Your task to perform on an android device: Show the shopping cart on costco.com. Image 0: 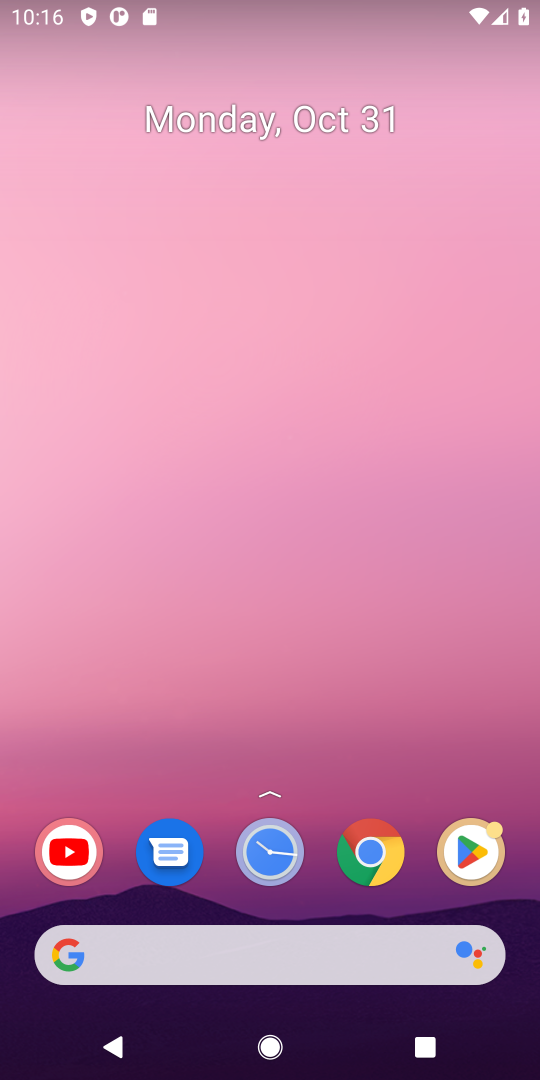
Step 0: drag from (233, 915) to (521, 440)
Your task to perform on an android device: Show the shopping cart on costco.com. Image 1: 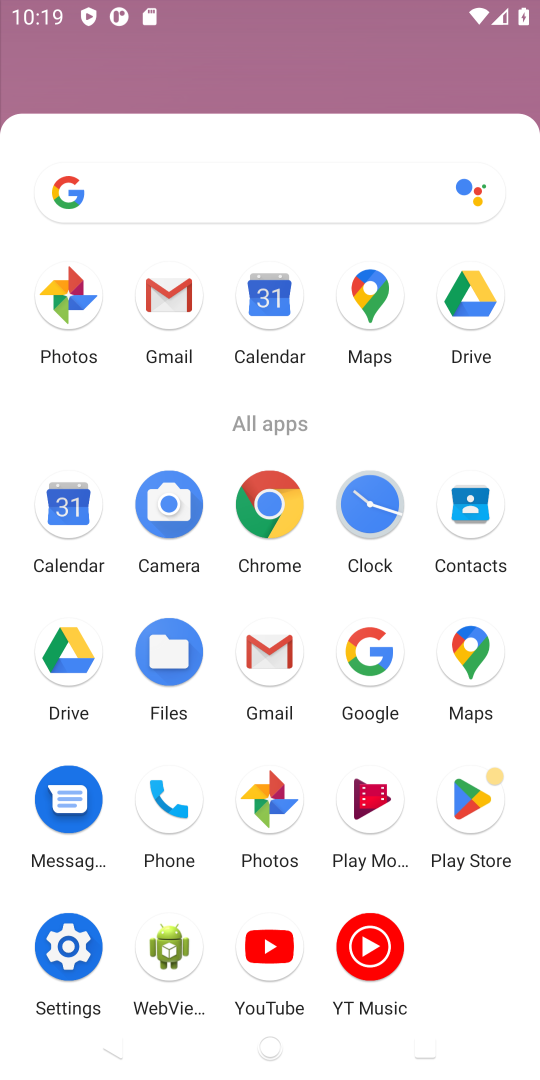
Step 1: click (279, 422)
Your task to perform on an android device: Show the shopping cart on costco.com. Image 2: 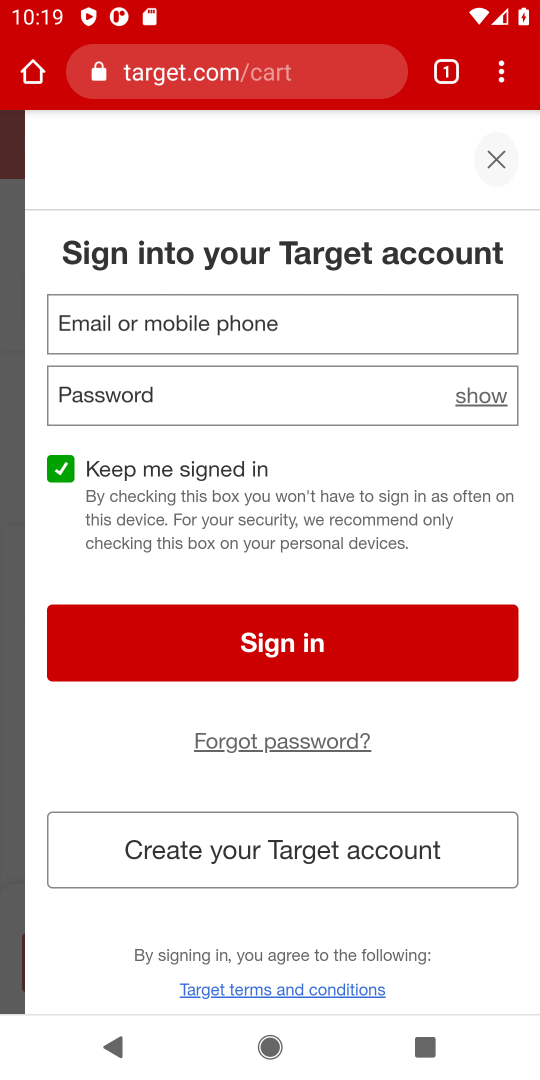
Step 2: click (304, 94)
Your task to perform on an android device: Show the shopping cart on costco.com. Image 3: 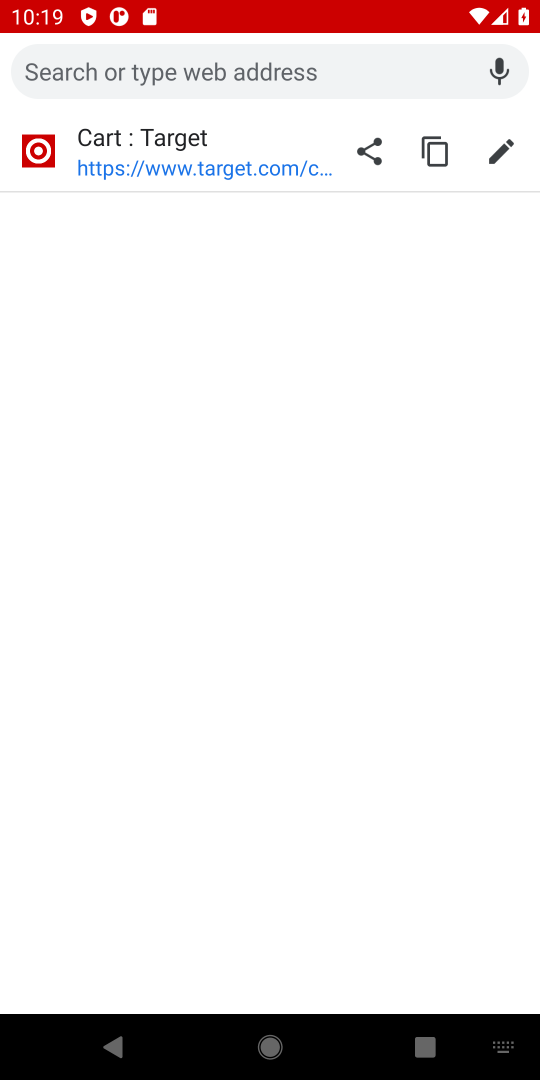
Step 3: type "costco.com."
Your task to perform on an android device: Show the shopping cart on costco.com. Image 4: 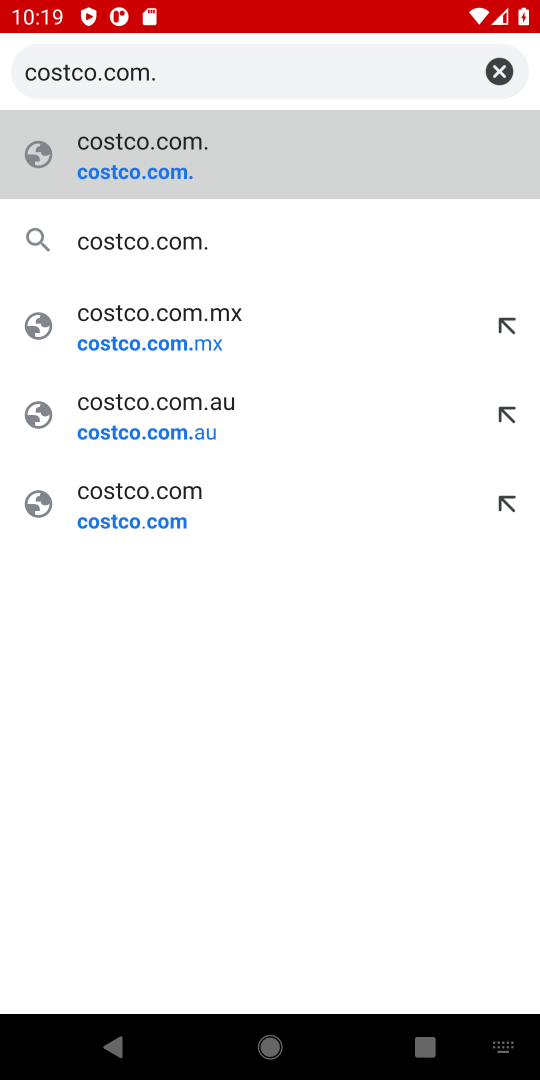
Step 4: press enter
Your task to perform on an android device: Show the shopping cart on costco.com. Image 5: 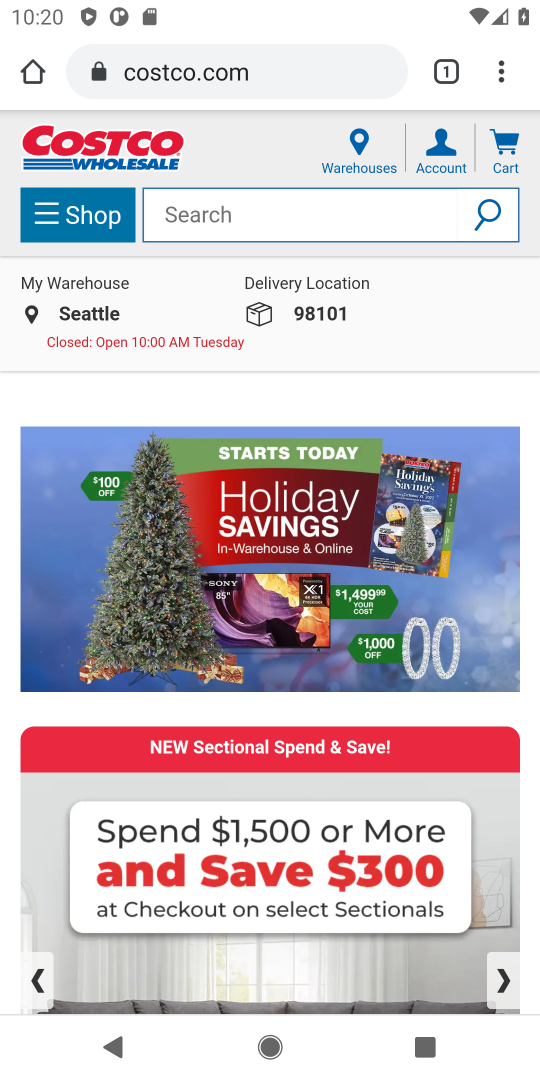
Step 5: click (501, 157)
Your task to perform on an android device: Show the shopping cart on costco.com. Image 6: 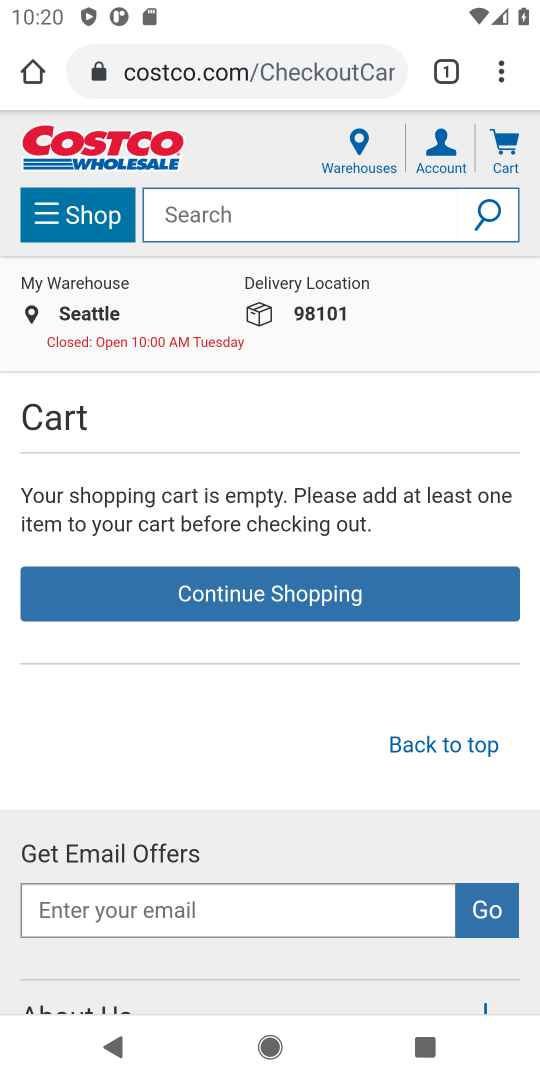
Step 6: task complete